Your task to perform on an android device: add a contact in the contacts app Image 0: 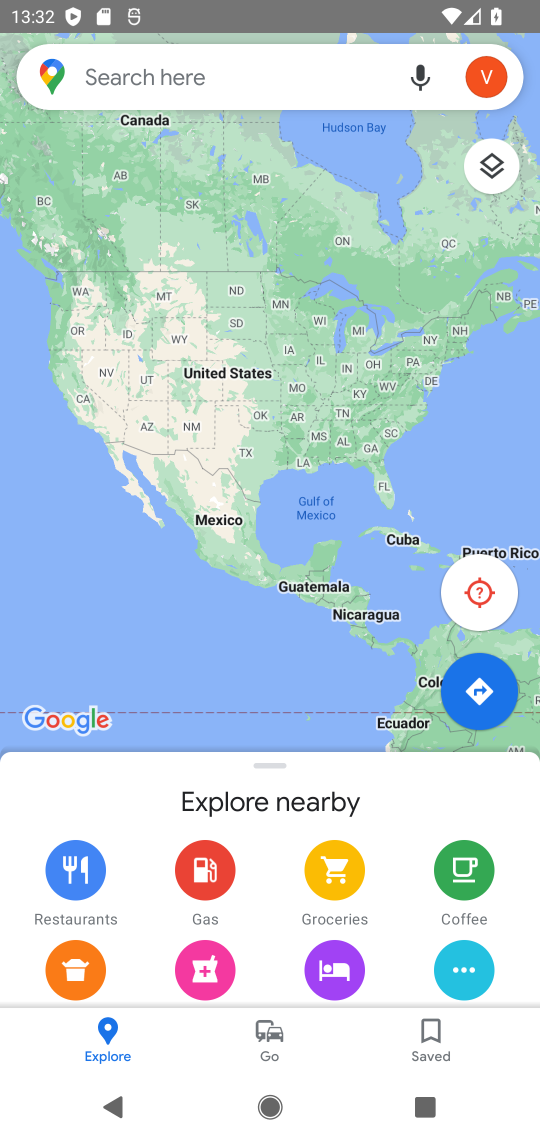
Step 0: press home button
Your task to perform on an android device: add a contact in the contacts app Image 1: 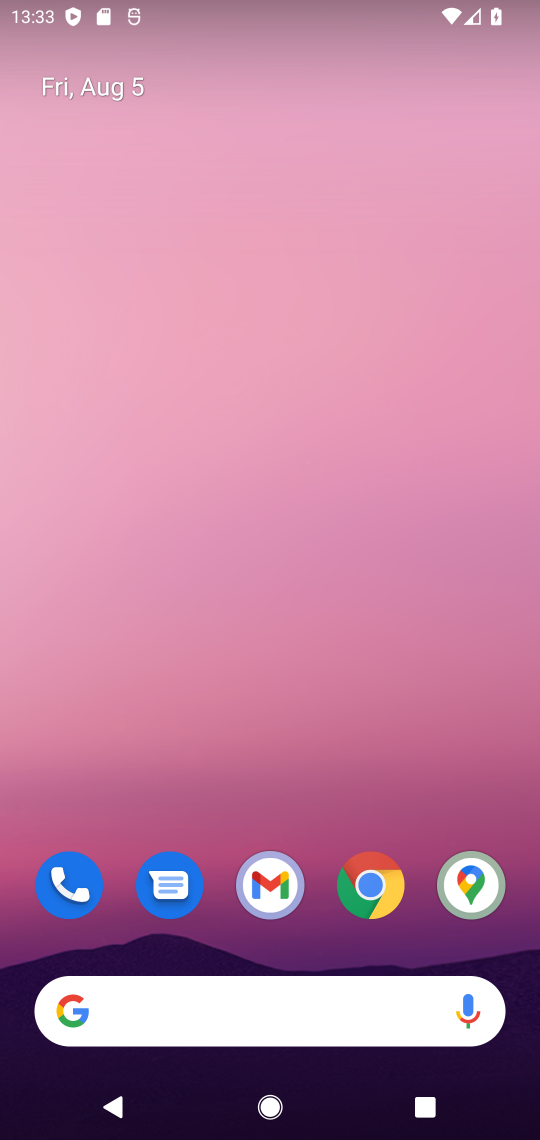
Step 1: drag from (268, 423) to (256, 214)
Your task to perform on an android device: add a contact in the contacts app Image 2: 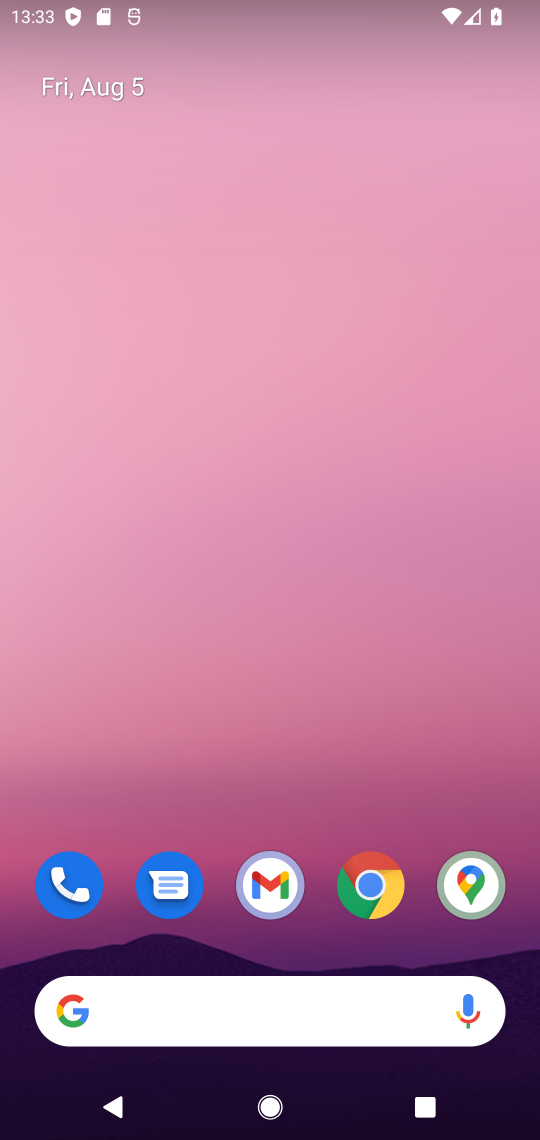
Step 2: drag from (241, 860) to (241, 348)
Your task to perform on an android device: add a contact in the contacts app Image 3: 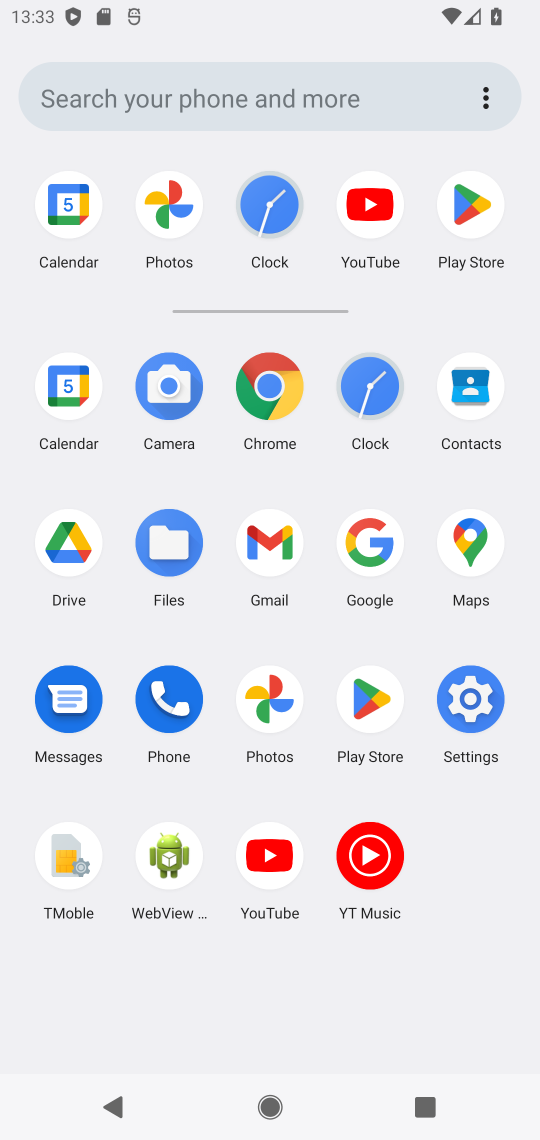
Step 3: click (472, 403)
Your task to perform on an android device: add a contact in the contacts app Image 4: 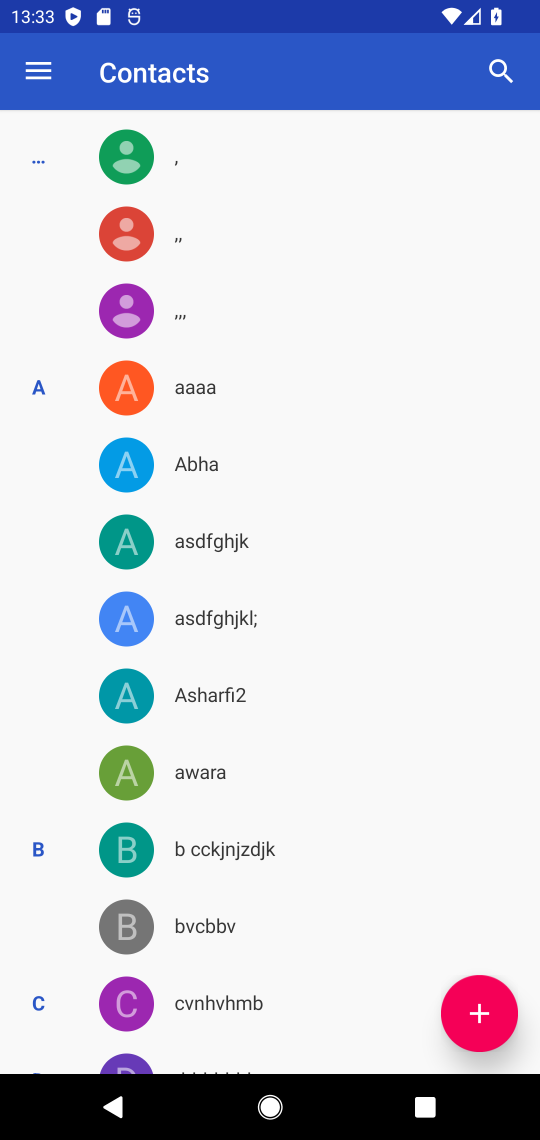
Step 4: click (484, 1020)
Your task to perform on an android device: add a contact in the contacts app Image 5: 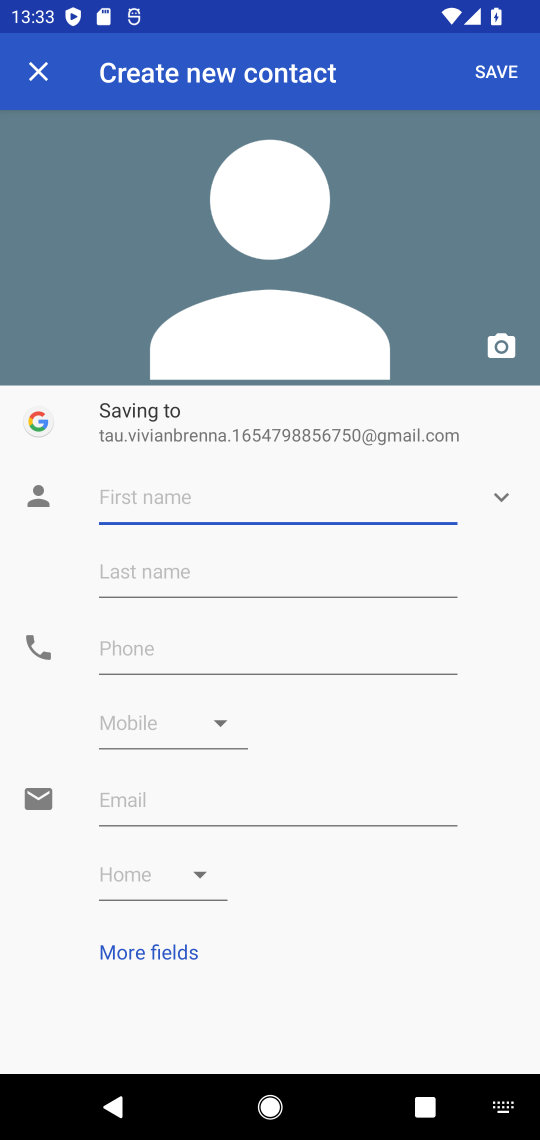
Step 5: type "Nimmy"
Your task to perform on an android device: add a contact in the contacts app Image 6: 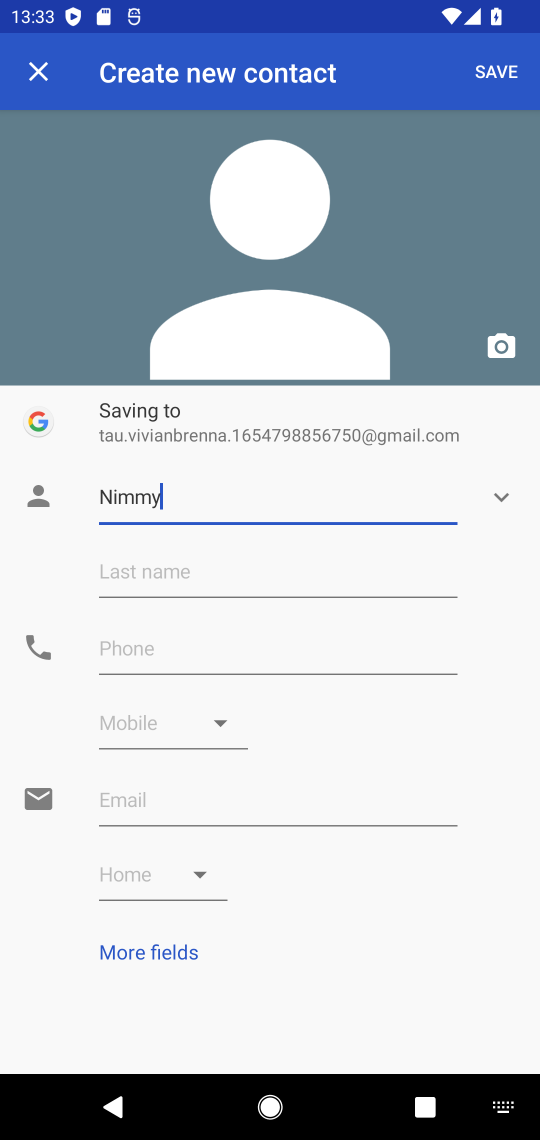
Step 6: click (162, 564)
Your task to perform on an android device: add a contact in the contacts app Image 7: 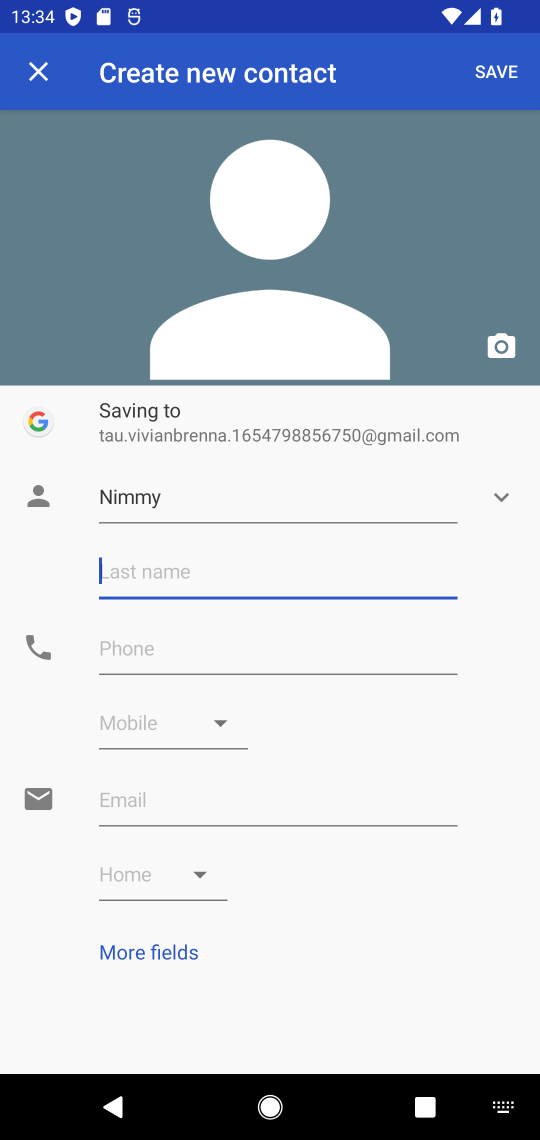
Step 7: type "Kush"
Your task to perform on an android device: add a contact in the contacts app Image 8: 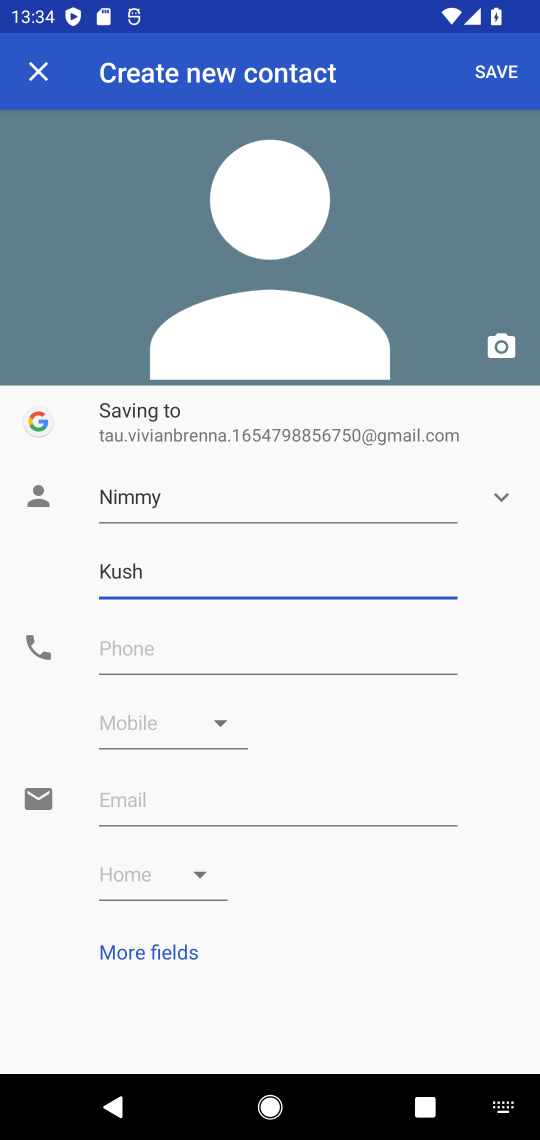
Step 8: click (261, 645)
Your task to perform on an android device: add a contact in the contacts app Image 9: 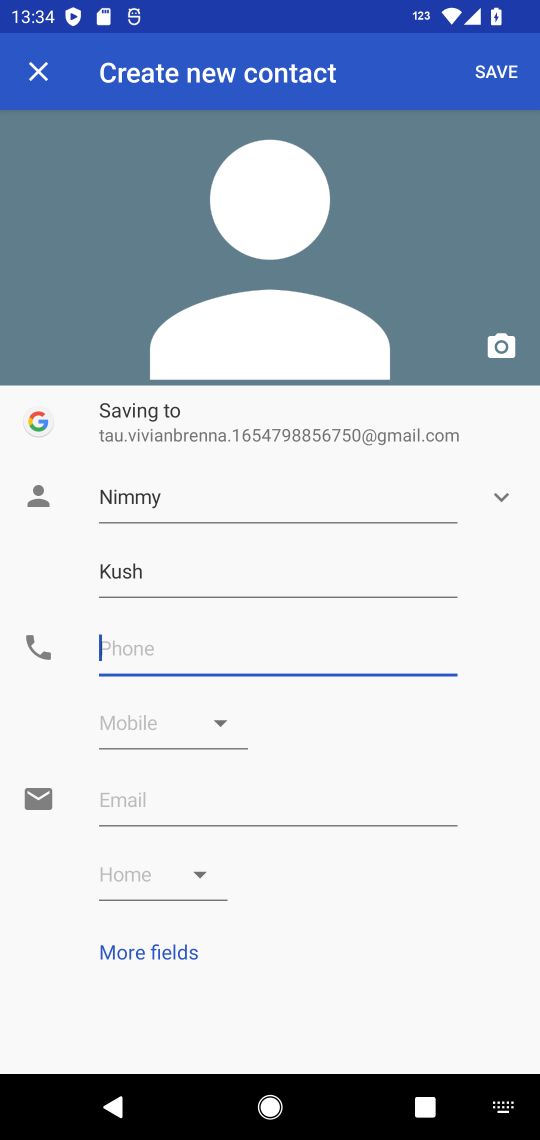
Step 9: type "9009879090"
Your task to perform on an android device: add a contact in the contacts app Image 10: 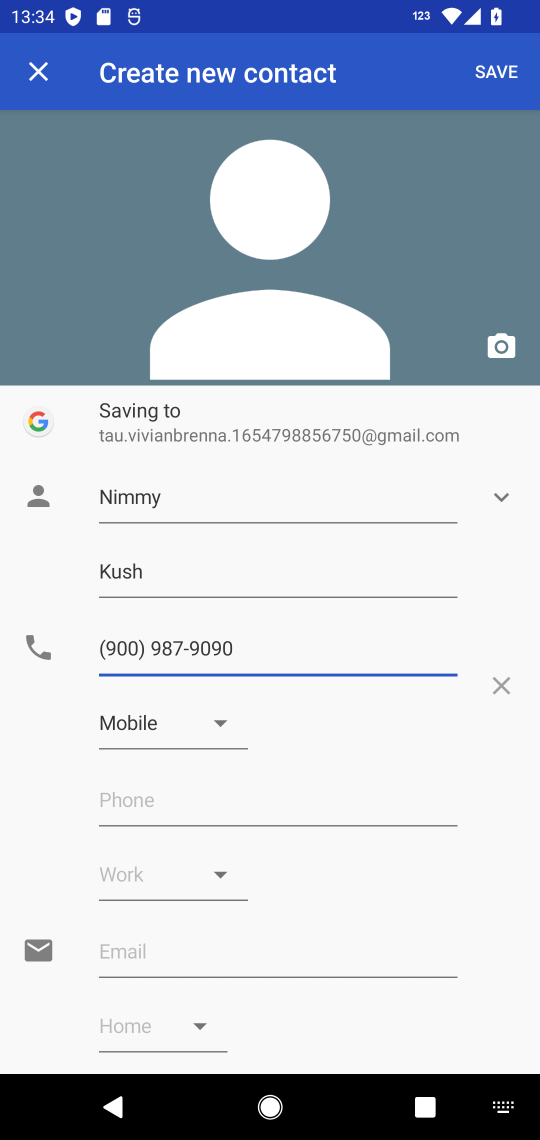
Step 10: click (502, 77)
Your task to perform on an android device: add a contact in the contacts app Image 11: 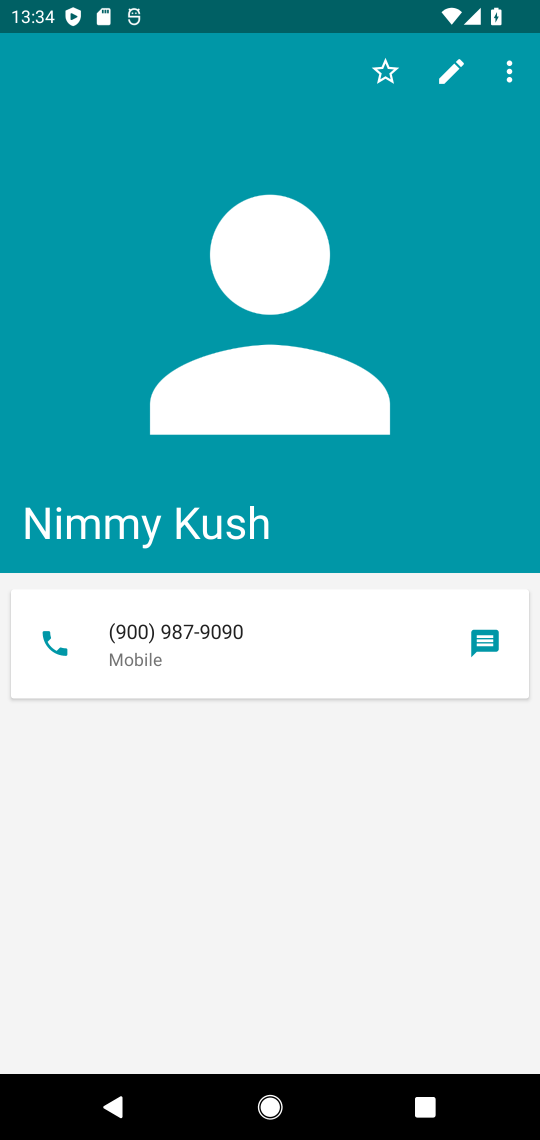
Step 11: task complete